Your task to perform on an android device: open wifi settings Image 0: 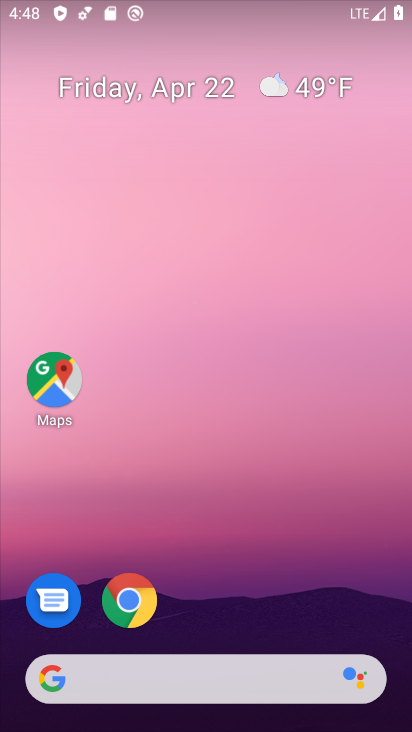
Step 0: drag from (215, 575) to (211, 20)
Your task to perform on an android device: open wifi settings Image 1: 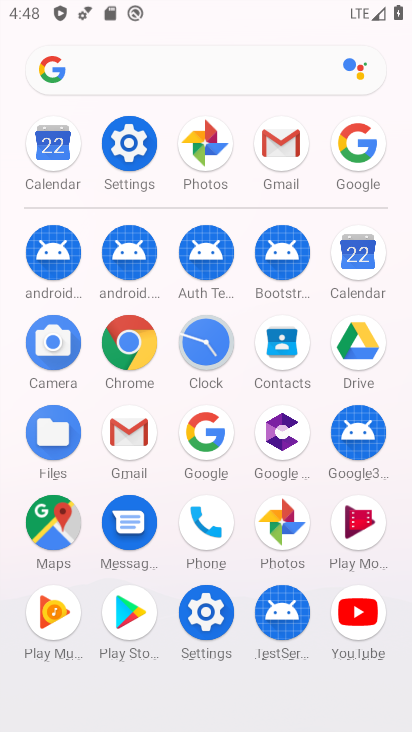
Step 1: click (130, 141)
Your task to perform on an android device: open wifi settings Image 2: 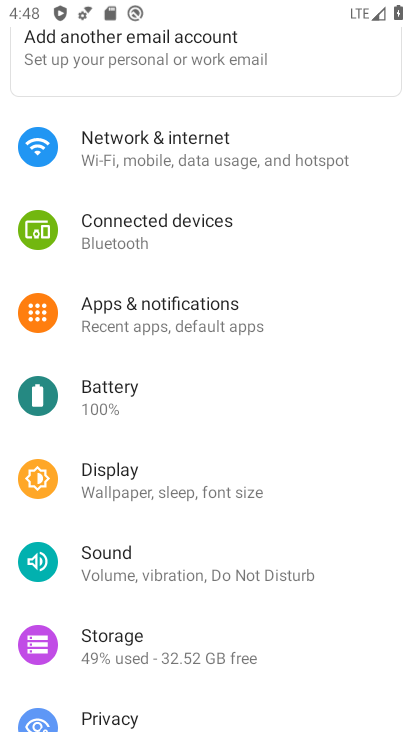
Step 2: click (137, 136)
Your task to perform on an android device: open wifi settings Image 3: 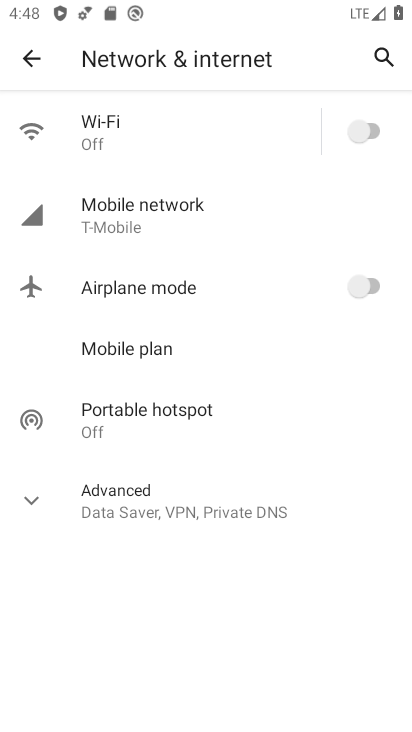
Step 3: click (118, 128)
Your task to perform on an android device: open wifi settings Image 4: 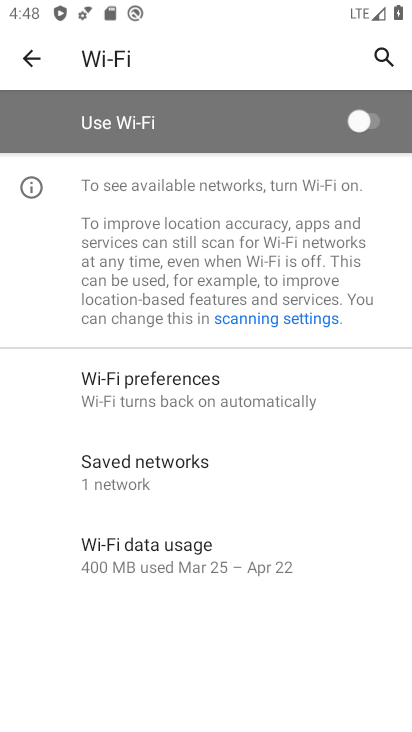
Step 4: task complete